Your task to perform on an android device: turn on wifi Image 0: 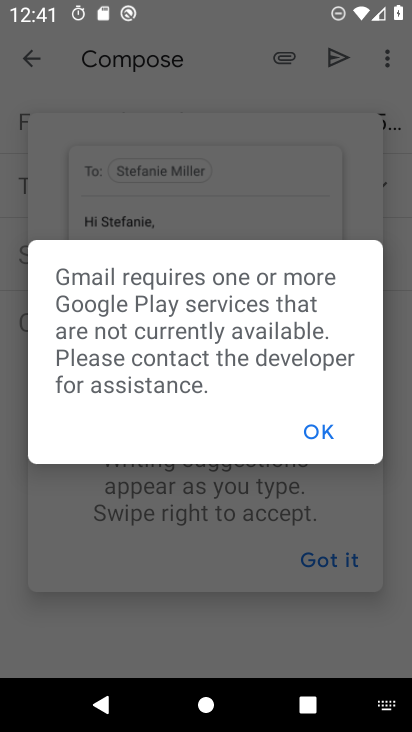
Step 0: press home button
Your task to perform on an android device: turn on wifi Image 1: 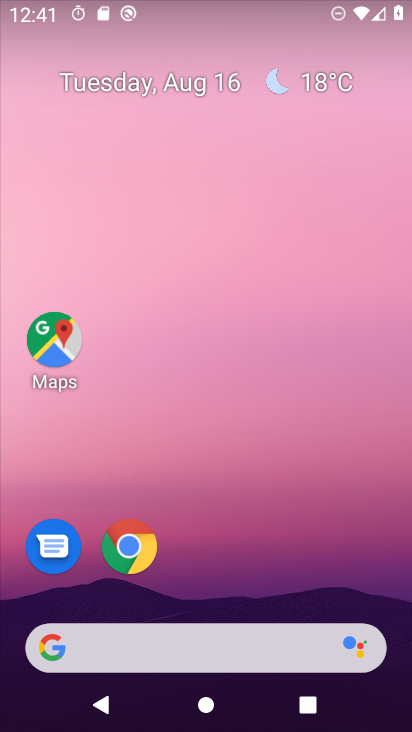
Step 1: drag from (219, 609) to (222, 105)
Your task to perform on an android device: turn on wifi Image 2: 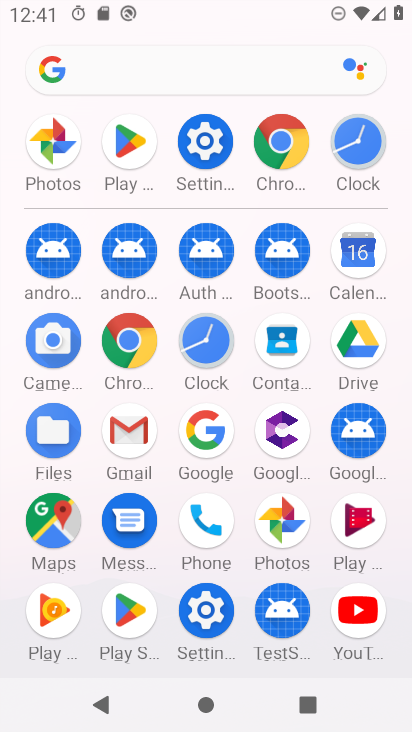
Step 2: click (197, 140)
Your task to perform on an android device: turn on wifi Image 3: 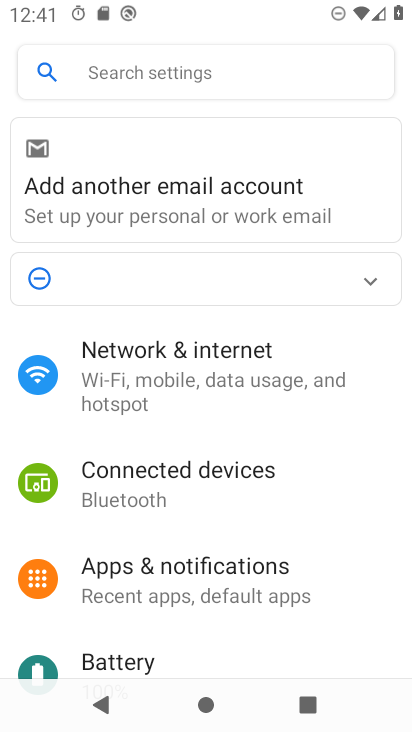
Step 3: click (158, 365)
Your task to perform on an android device: turn on wifi Image 4: 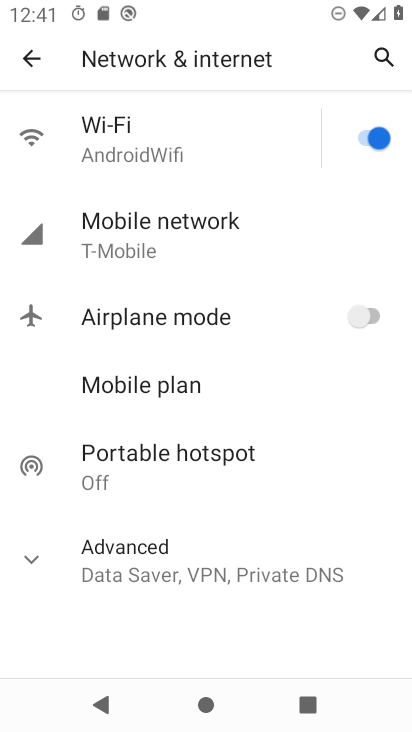
Step 4: task complete